Your task to perform on an android device: toggle data saver in the chrome app Image 0: 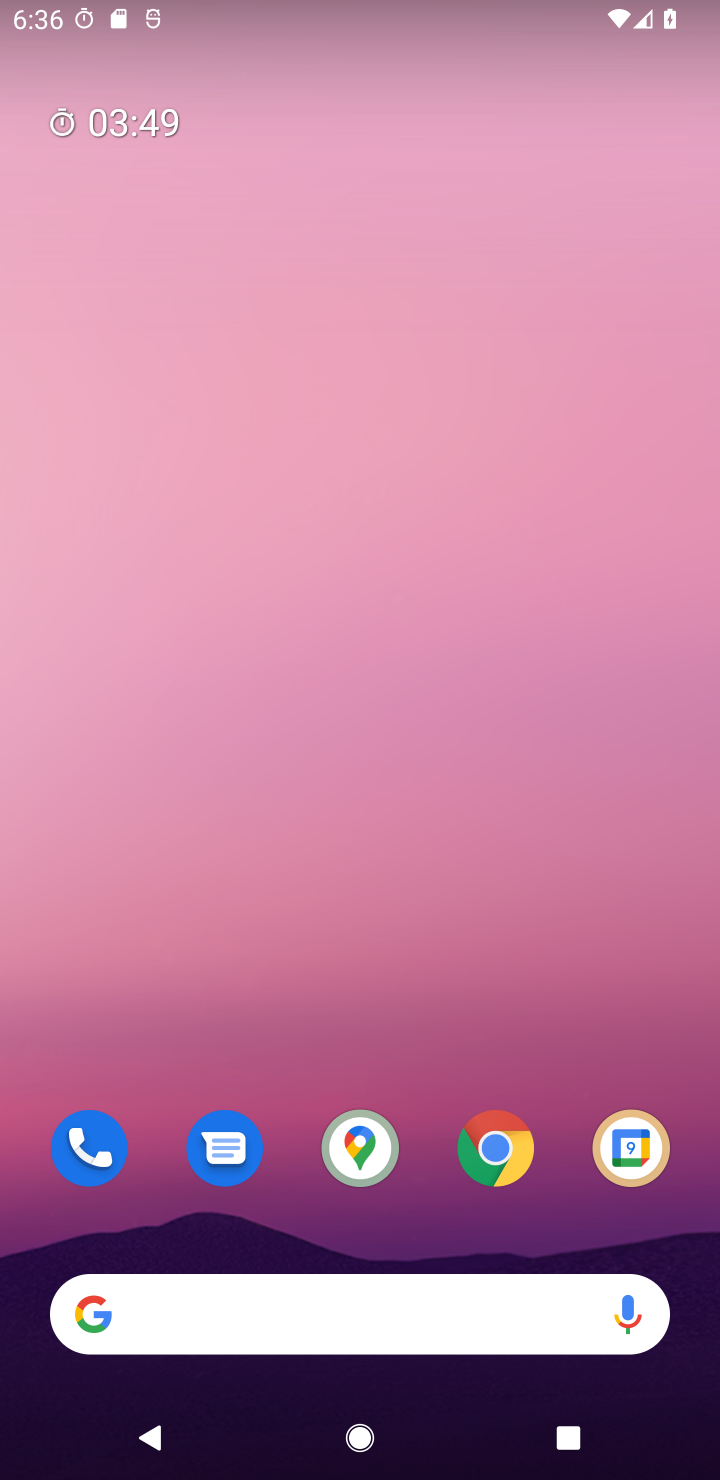
Step 0: click (495, 1156)
Your task to perform on an android device: toggle data saver in the chrome app Image 1: 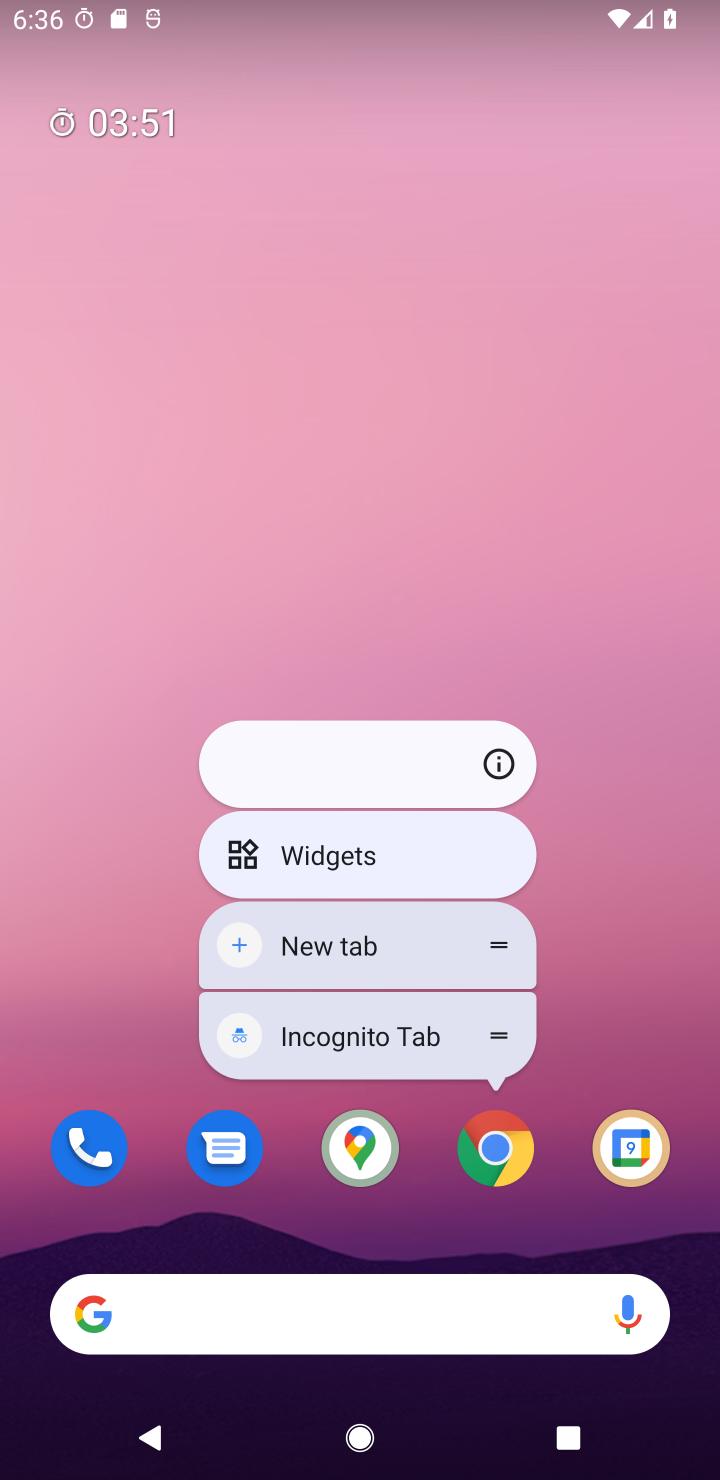
Step 1: click (482, 1160)
Your task to perform on an android device: toggle data saver in the chrome app Image 2: 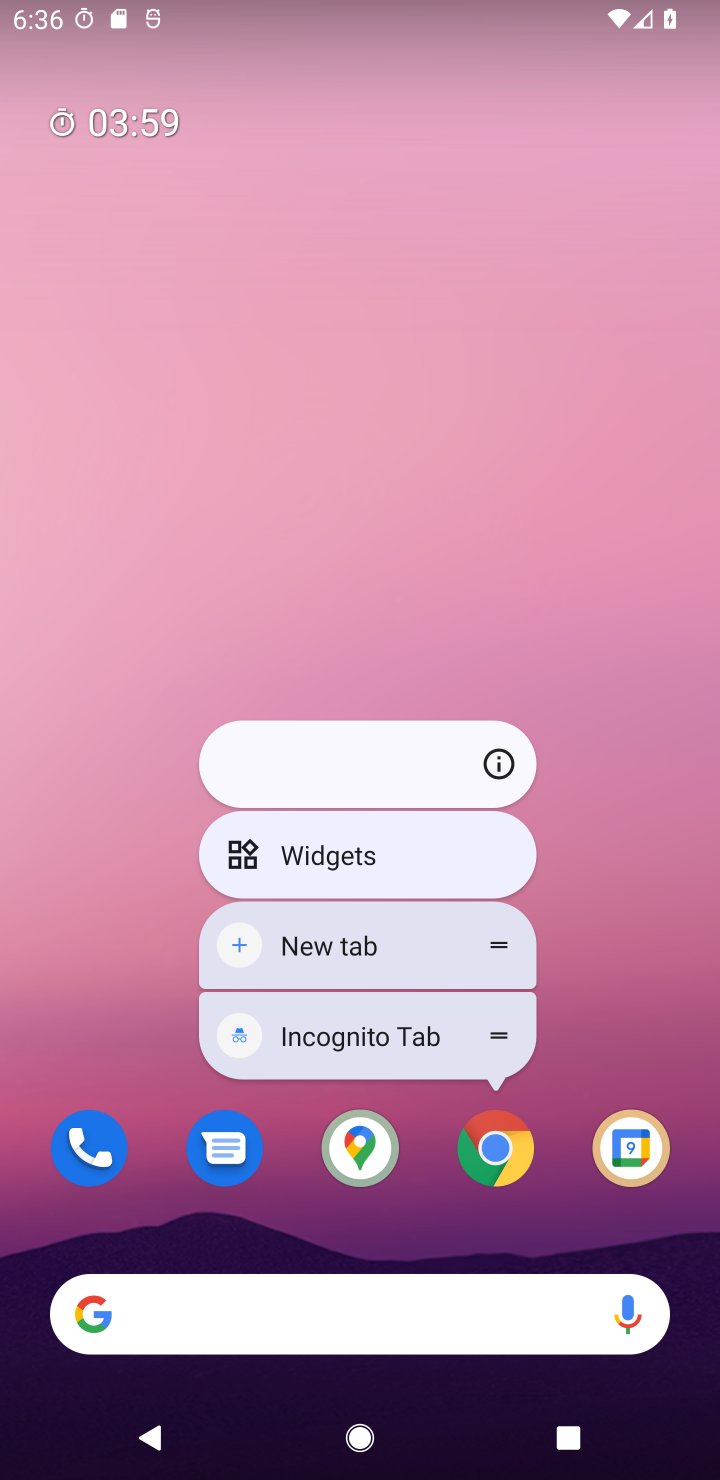
Step 2: click (479, 1148)
Your task to perform on an android device: toggle data saver in the chrome app Image 3: 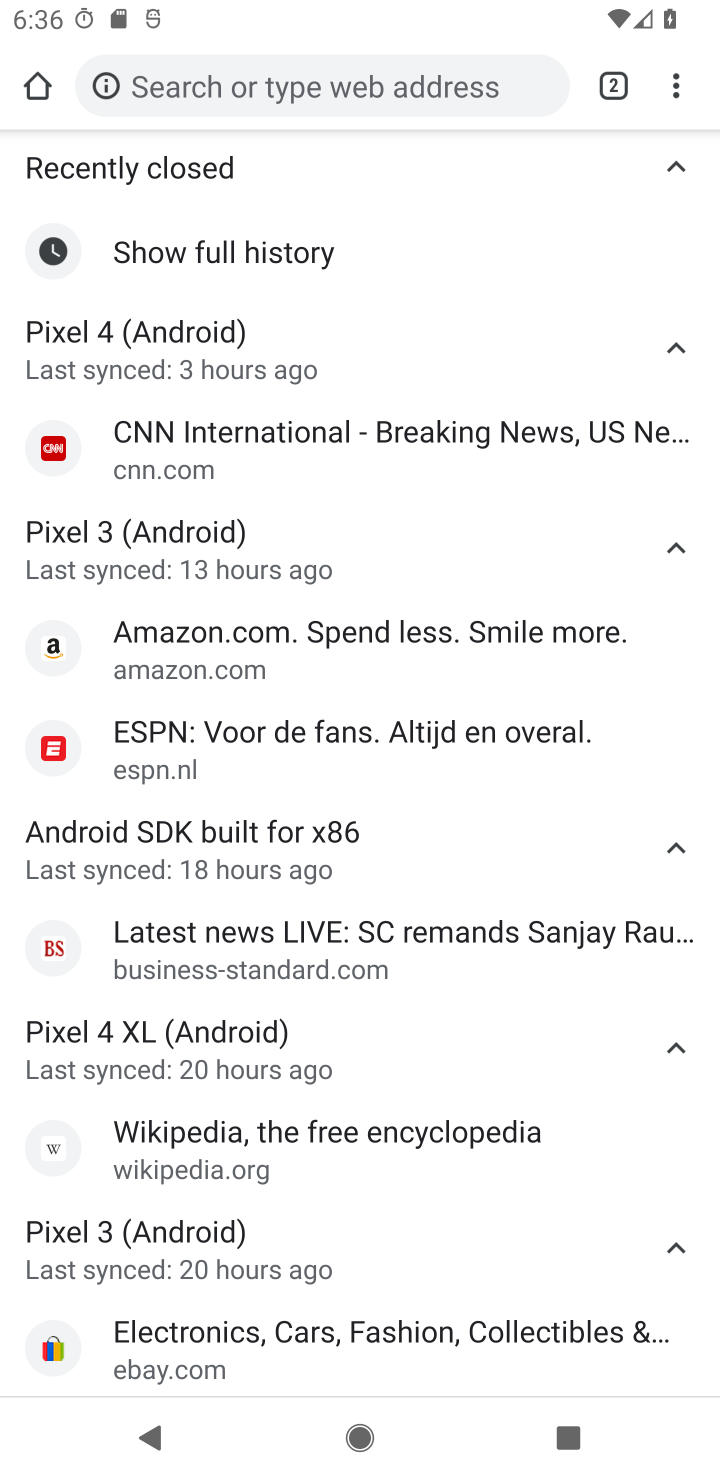
Step 3: click (676, 102)
Your task to perform on an android device: toggle data saver in the chrome app Image 4: 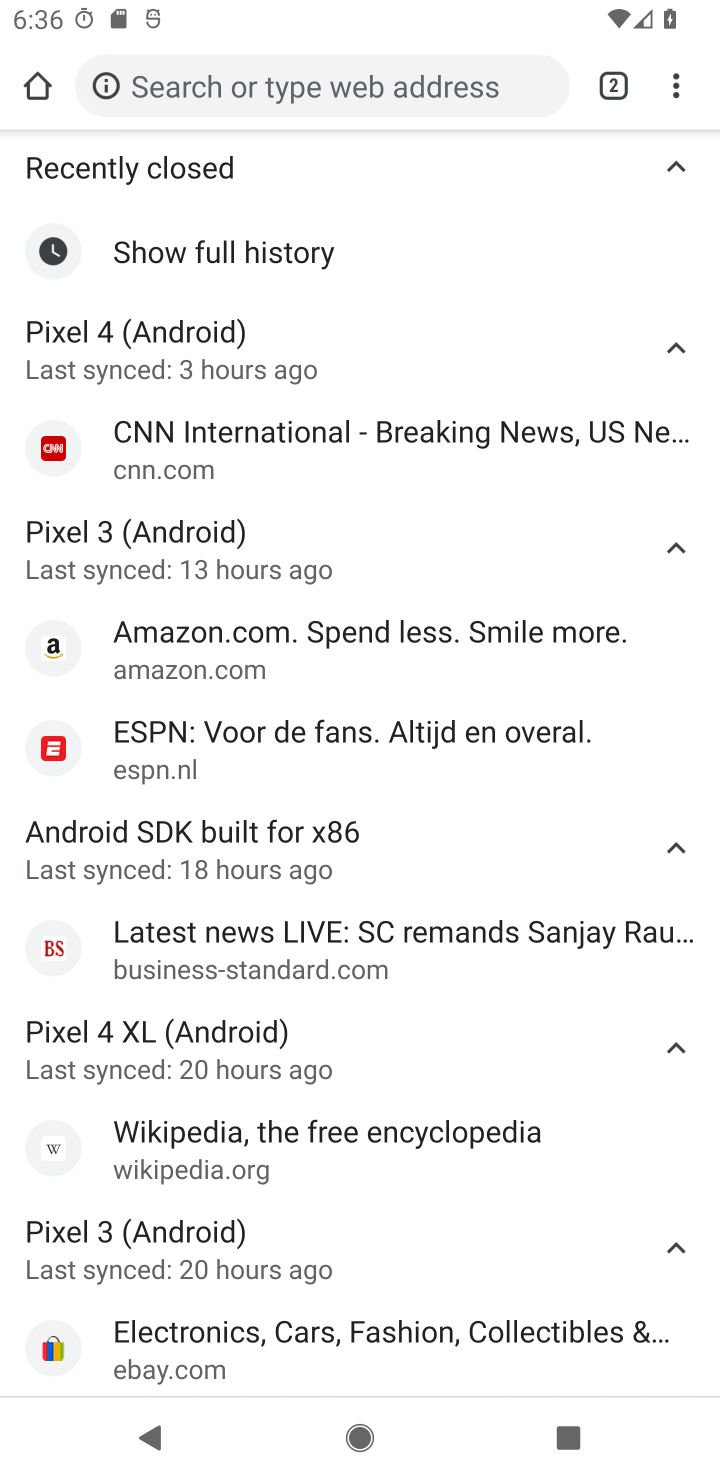
Step 4: click (675, 101)
Your task to perform on an android device: toggle data saver in the chrome app Image 5: 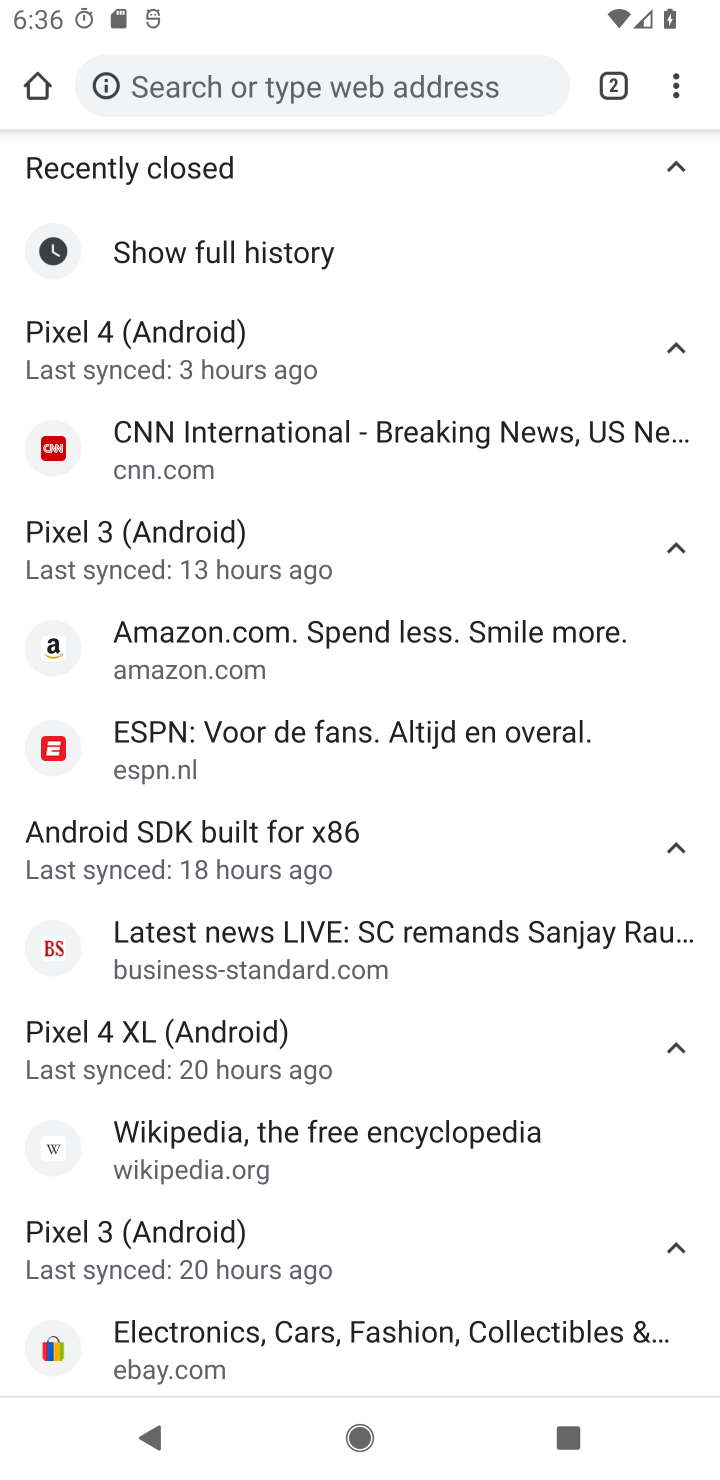
Step 5: click (674, 93)
Your task to perform on an android device: toggle data saver in the chrome app Image 6: 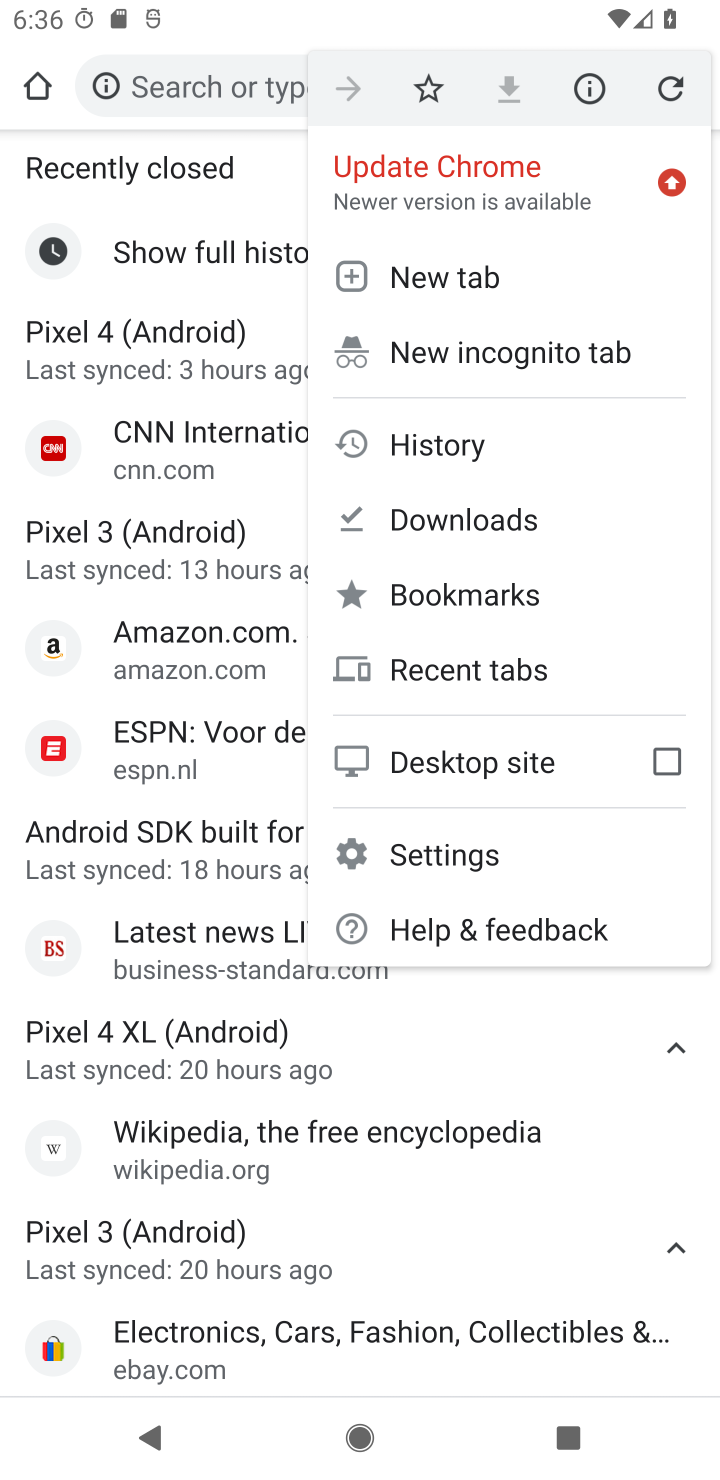
Step 6: click (464, 856)
Your task to perform on an android device: toggle data saver in the chrome app Image 7: 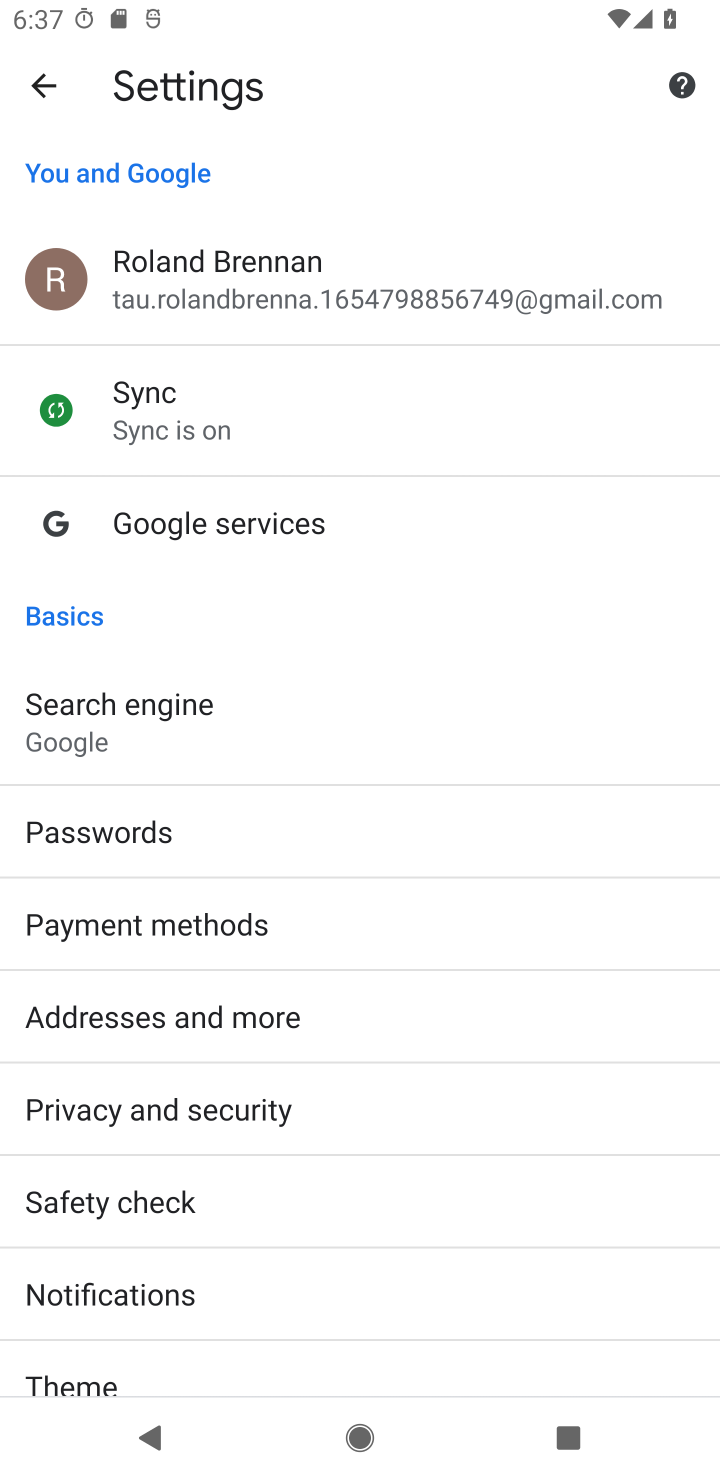
Step 7: drag from (163, 1212) to (171, 780)
Your task to perform on an android device: toggle data saver in the chrome app Image 8: 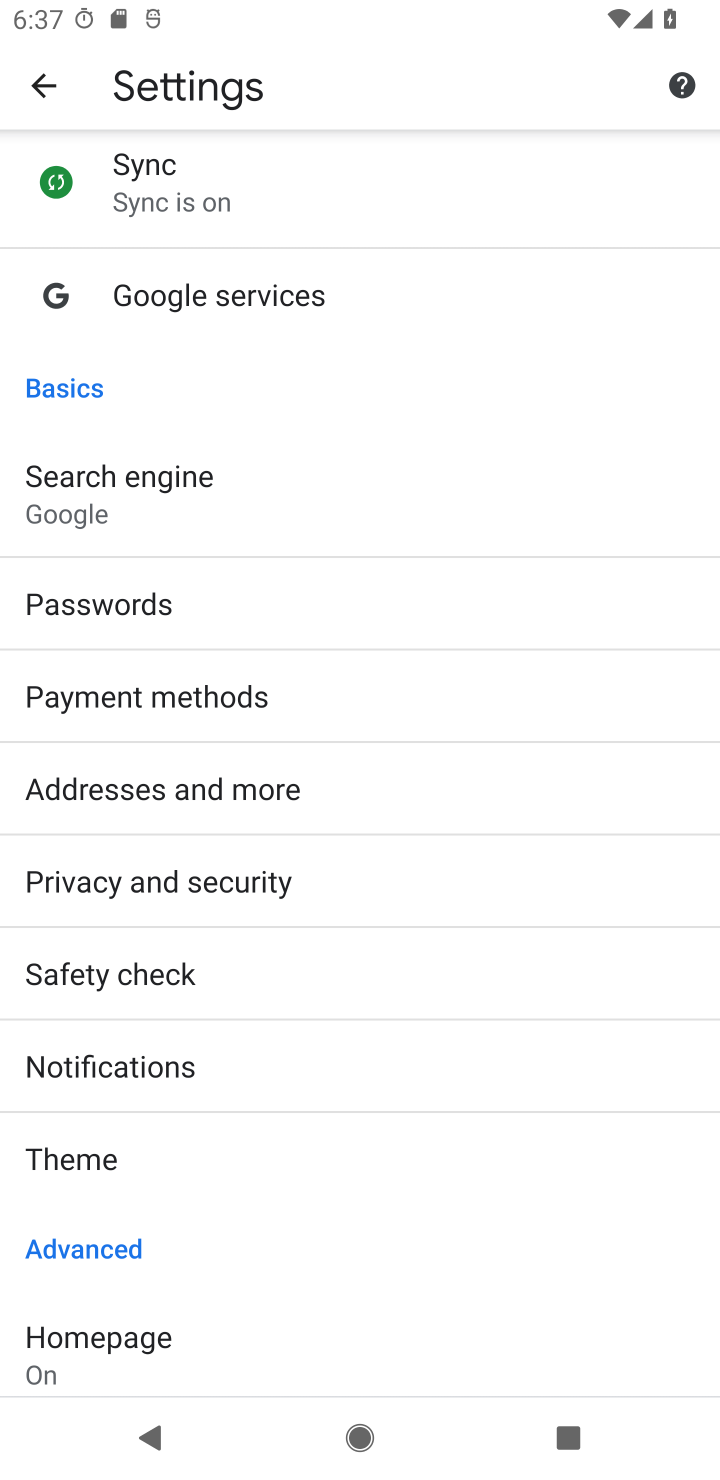
Step 8: drag from (233, 1224) to (240, 795)
Your task to perform on an android device: toggle data saver in the chrome app Image 9: 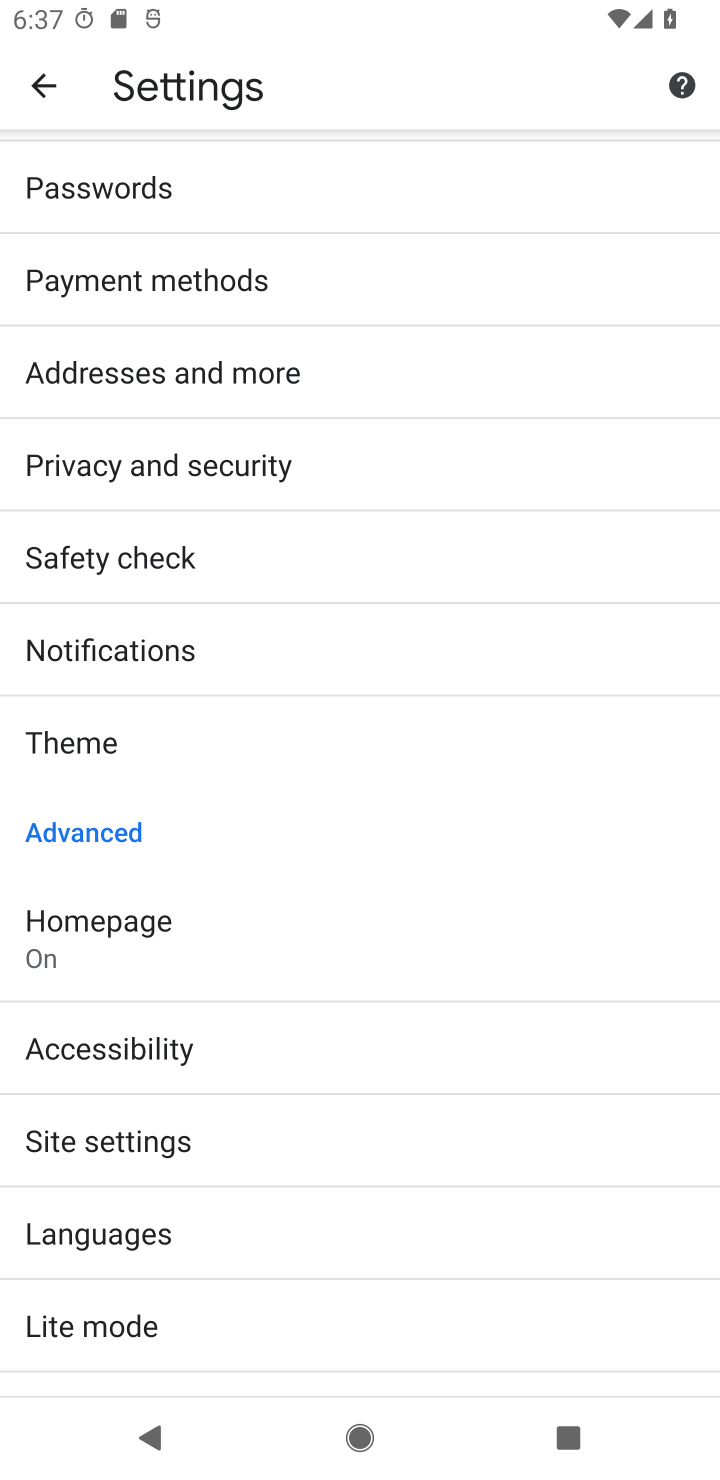
Step 9: click (115, 1137)
Your task to perform on an android device: toggle data saver in the chrome app Image 10: 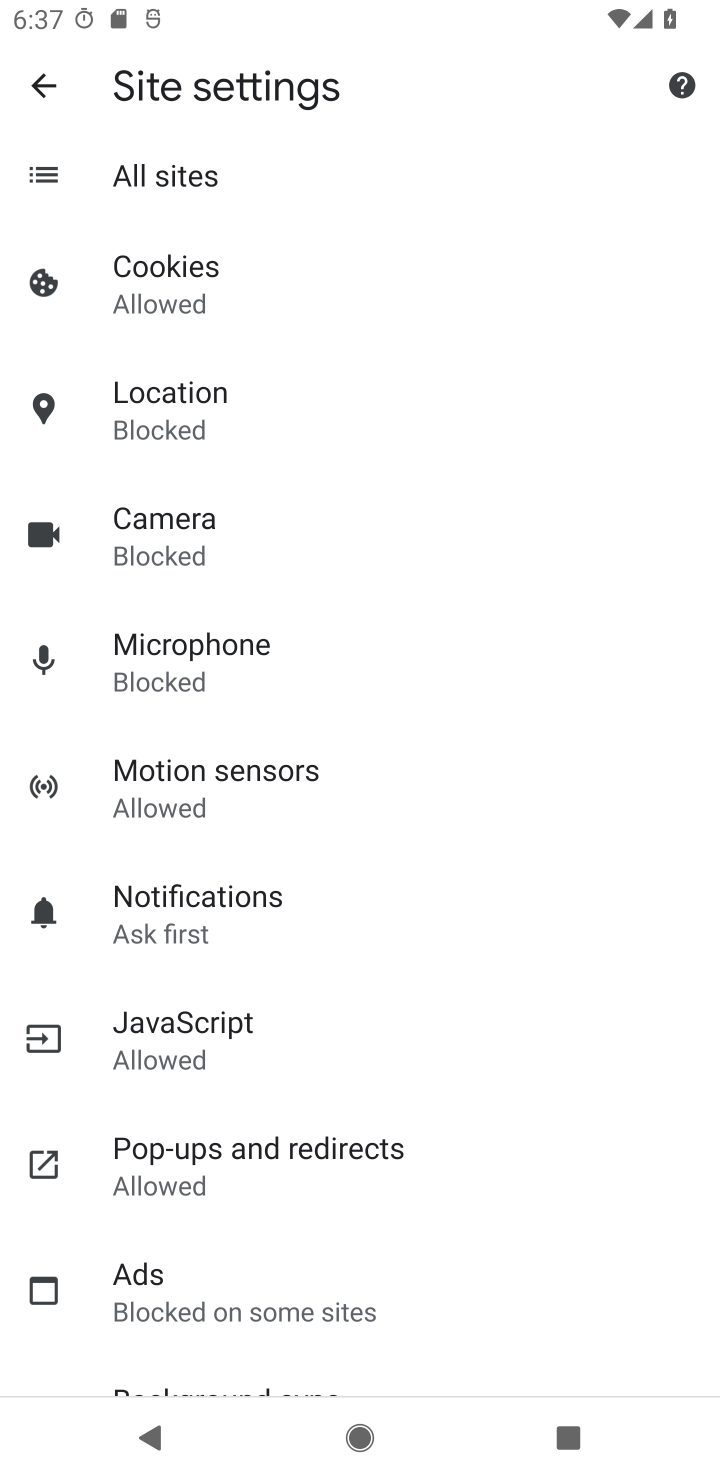
Step 10: click (32, 76)
Your task to perform on an android device: toggle data saver in the chrome app Image 11: 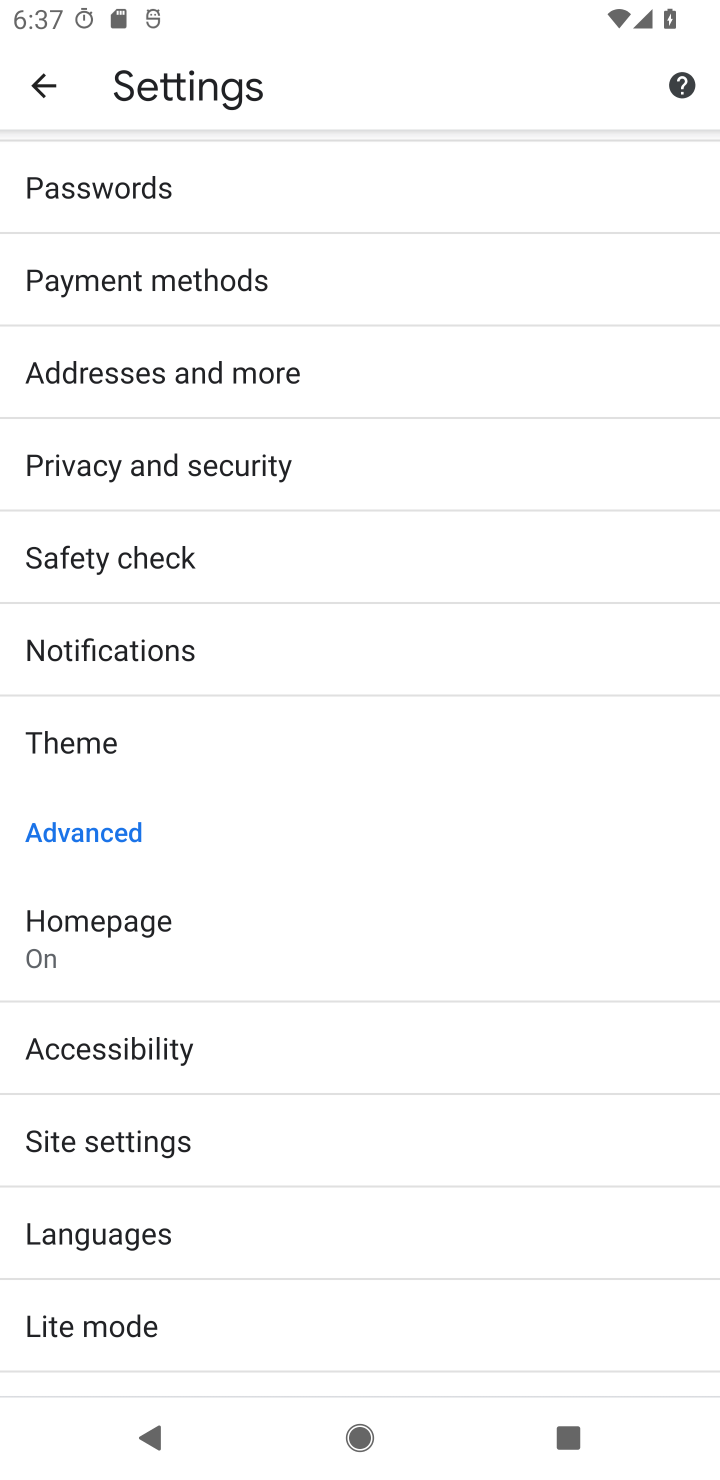
Step 11: click (140, 1332)
Your task to perform on an android device: toggle data saver in the chrome app Image 12: 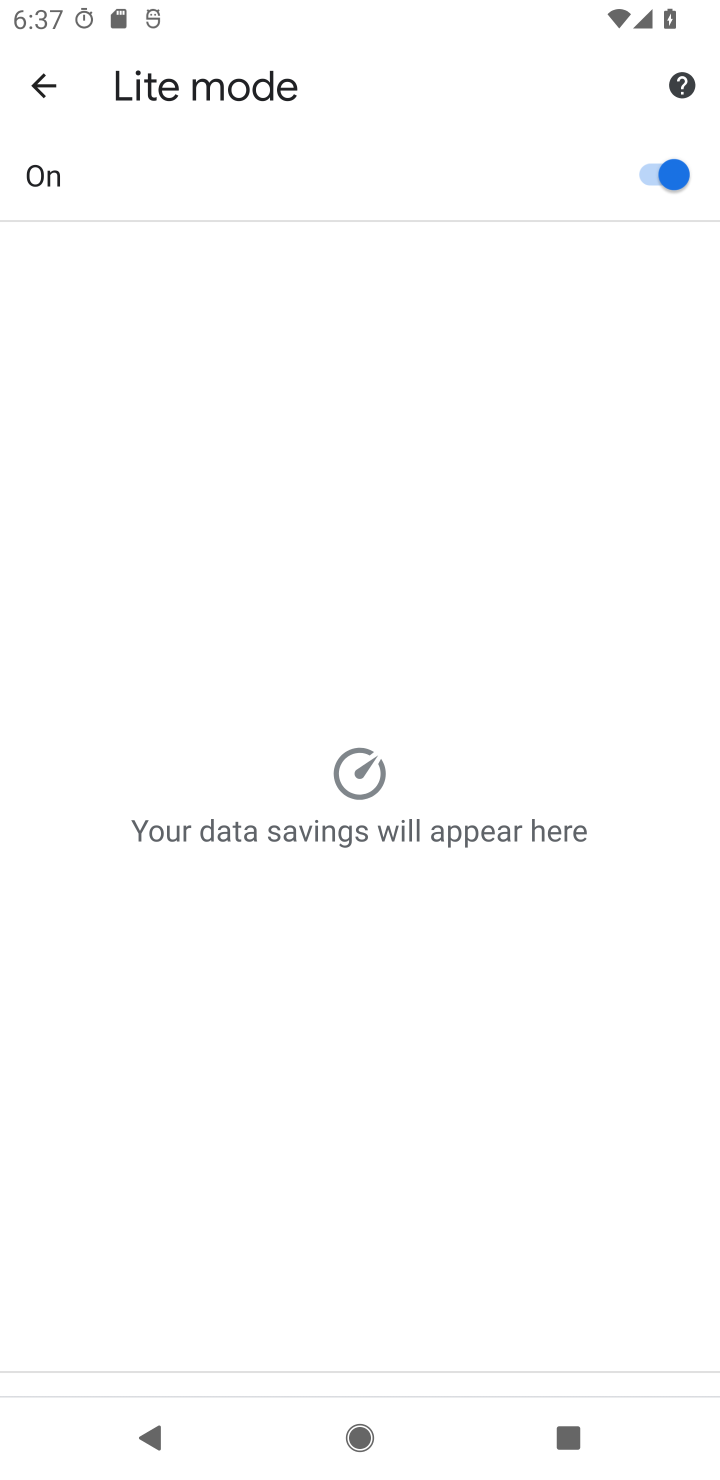
Step 12: click (576, 180)
Your task to perform on an android device: toggle data saver in the chrome app Image 13: 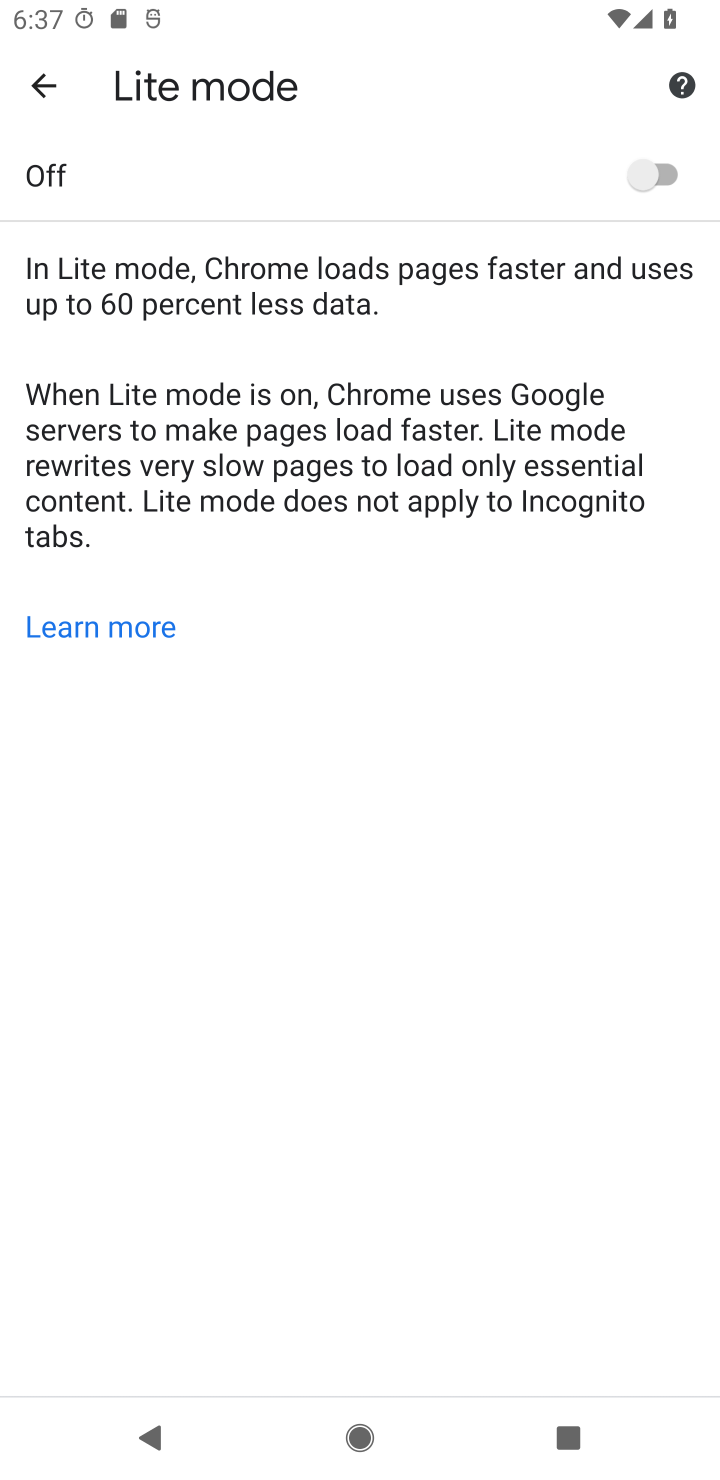
Step 13: task complete